Your task to perform on an android device: turn notification dots on Image 0: 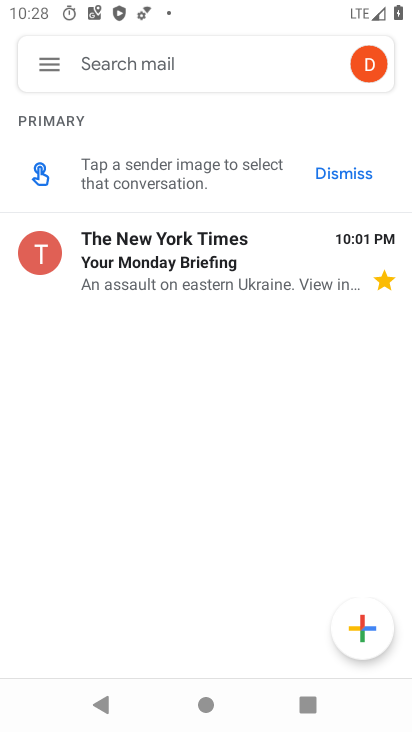
Step 0: click (275, 529)
Your task to perform on an android device: turn notification dots on Image 1: 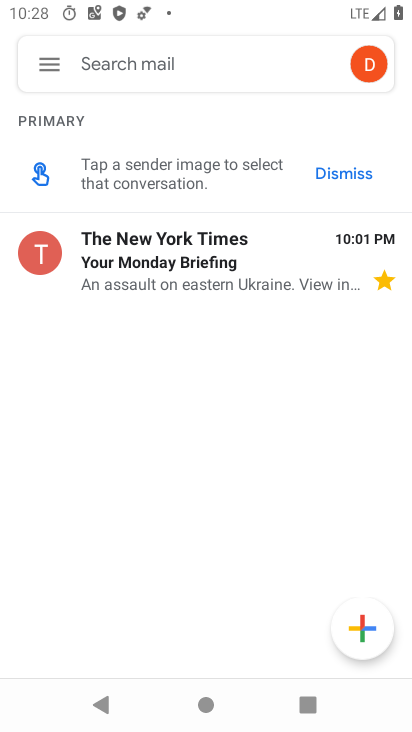
Step 1: click (224, 572)
Your task to perform on an android device: turn notification dots on Image 2: 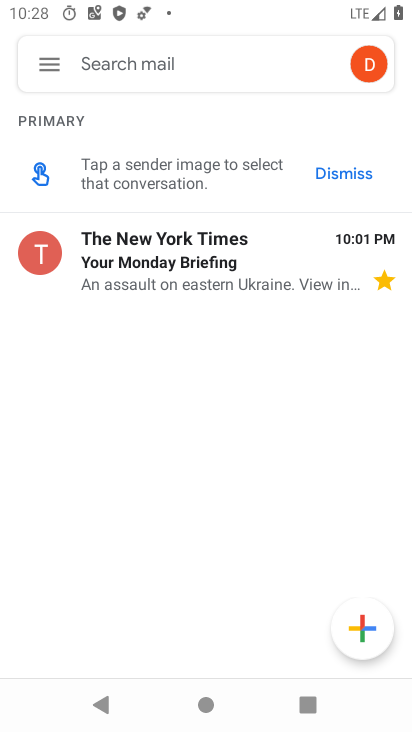
Step 2: drag from (230, 593) to (355, 88)
Your task to perform on an android device: turn notification dots on Image 3: 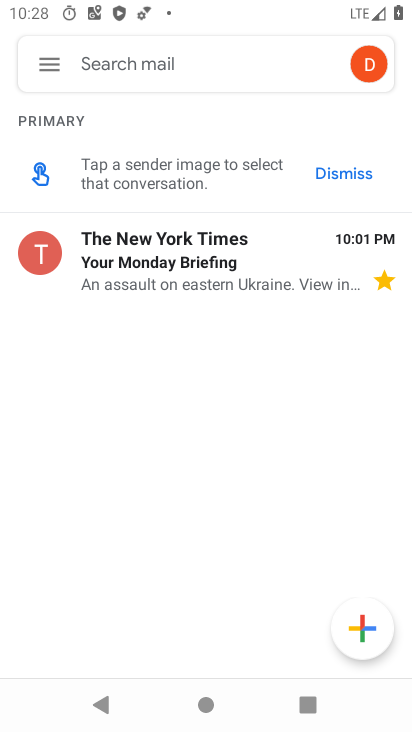
Step 3: click (36, 67)
Your task to perform on an android device: turn notification dots on Image 4: 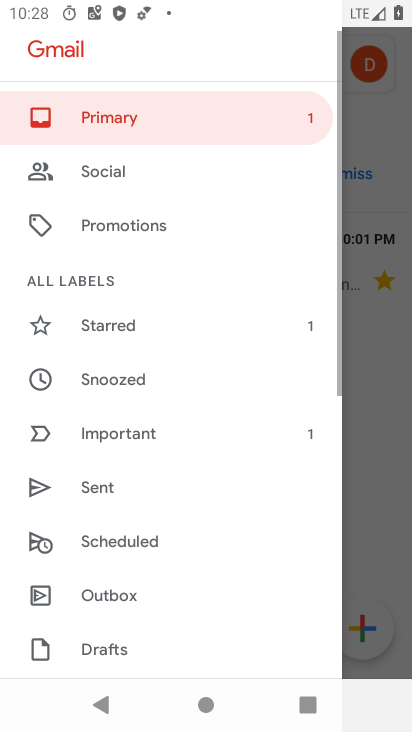
Step 4: drag from (121, 570) to (273, 4)
Your task to perform on an android device: turn notification dots on Image 5: 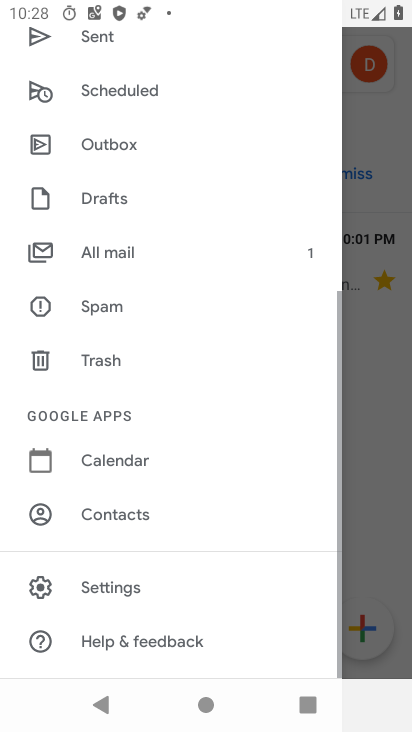
Step 5: click (113, 591)
Your task to perform on an android device: turn notification dots on Image 6: 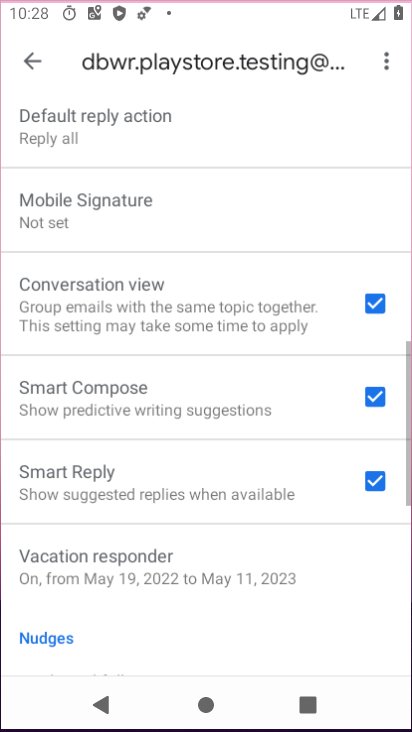
Step 6: drag from (113, 579) to (274, 101)
Your task to perform on an android device: turn notification dots on Image 7: 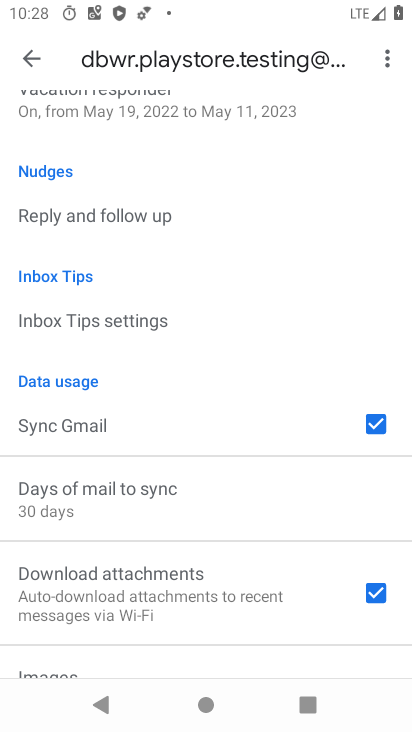
Step 7: drag from (224, 343) to (218, 661)
Your task to perform on an android device: turn notification dots on Image 8: 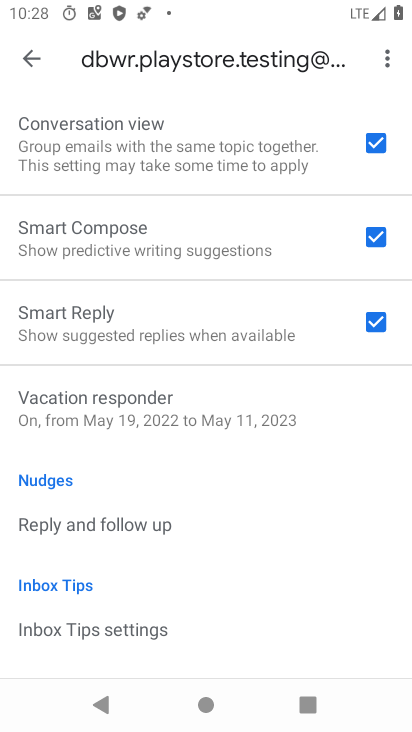
Step 8: press home button
Your task to perform on an android device: turn notification dots on Image 9: 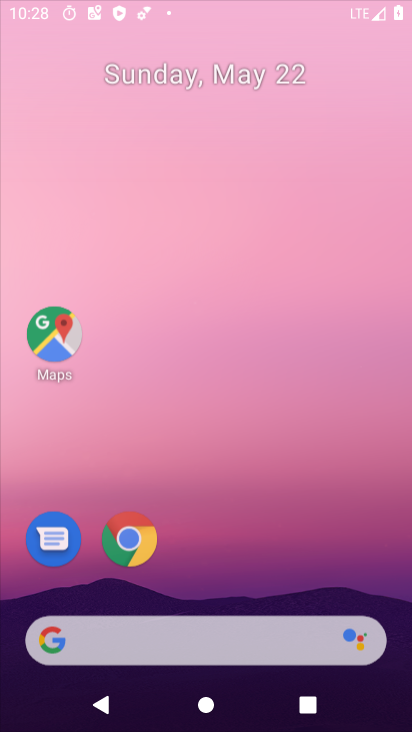
Step 9: drag from (209, 634) to (256, 104)
Your task to perform on an android device: turn notification dots on Image 10: 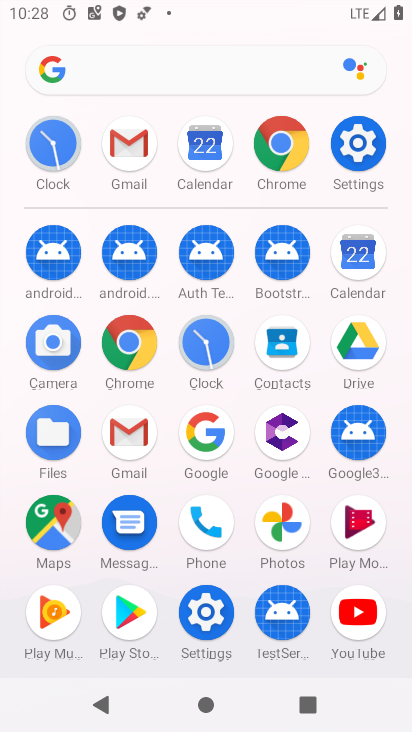
Step 10: click (364, 147)
Your task to perform on an android device: turn notification dots on Image 11: 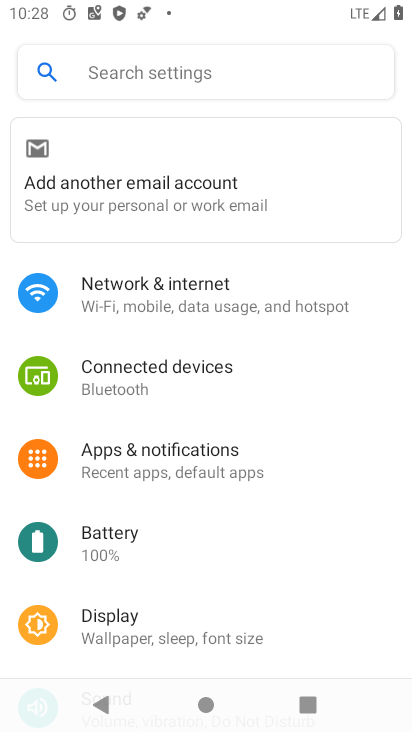
Step 11: click (186, 458)
Your task to perform on an android device: turn notification dots on Image 12: 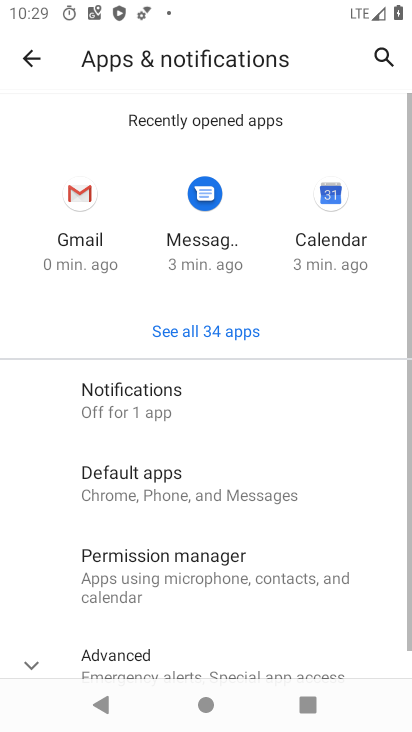
Step 12: click (190, 400)
Your task to perform on an android device: turn notification dots on Image 13: 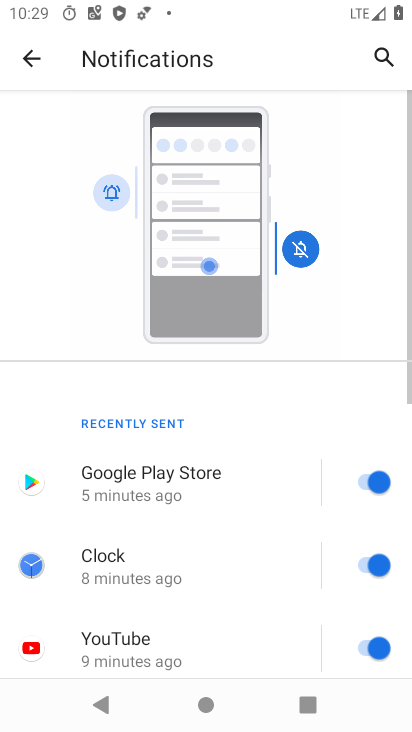
Step 13: drag from (204, 615) to (311, 113)
Your task to perform on an android device: turn notification dots on Image 14: 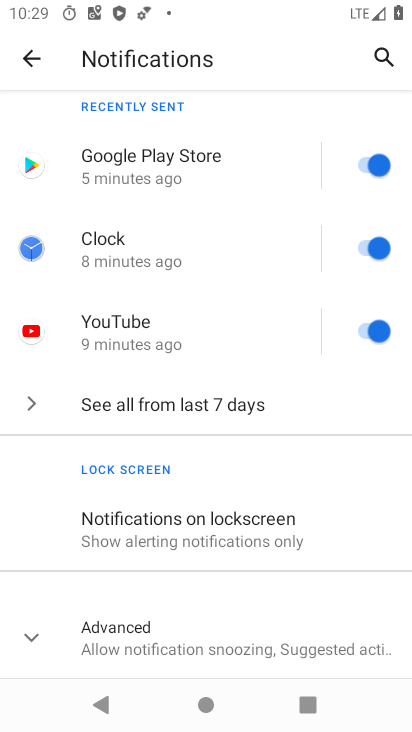
Step 14: click (200, 649)
Your task to perform on an android device: turn notification dots on Image 15: 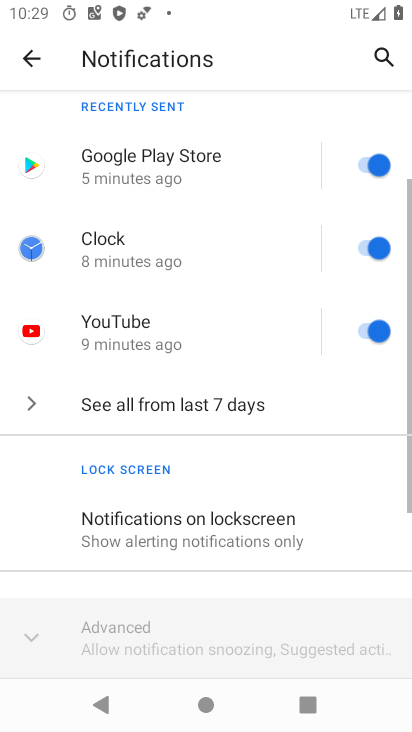
Step 15: drag from (200, 649) to (368, 49)
Your task to perform on an android device: turn notification dots on Image 16: 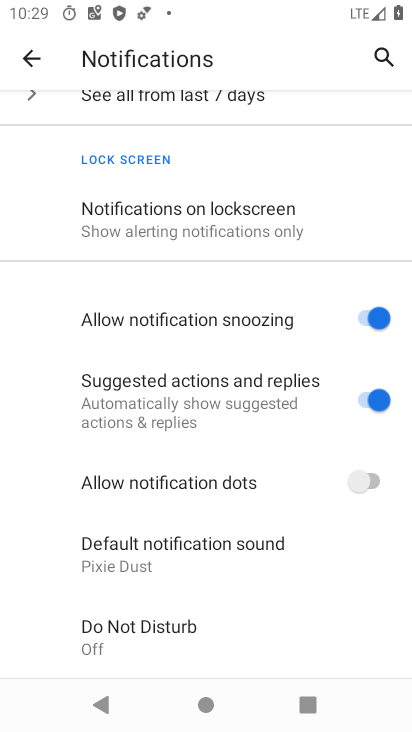
Step 16: click (344, 483)
Your task to perform on an android device: turn notification dots on Image 17: 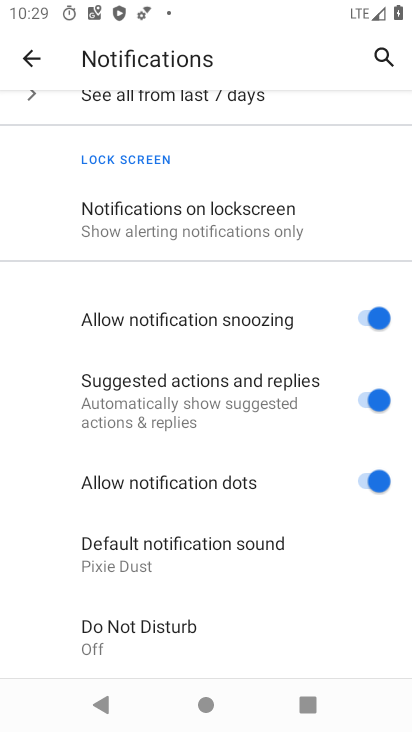
Step 17: task complete